Your task to perform on an android device: turn off airplane mode Image 0: 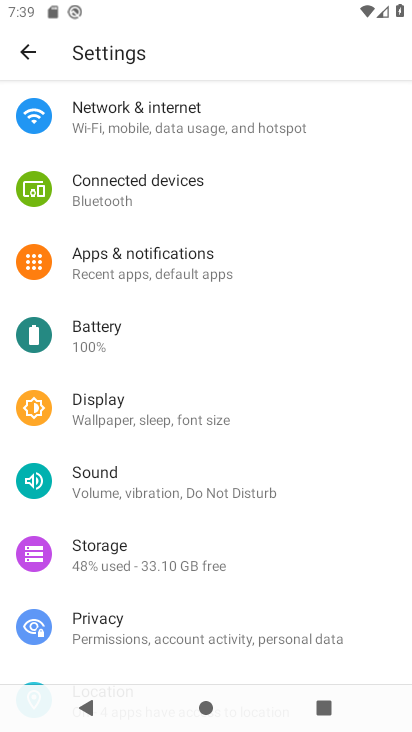
Step 0: task complete